Your task to perform on an android device: turn off location history Image 0: 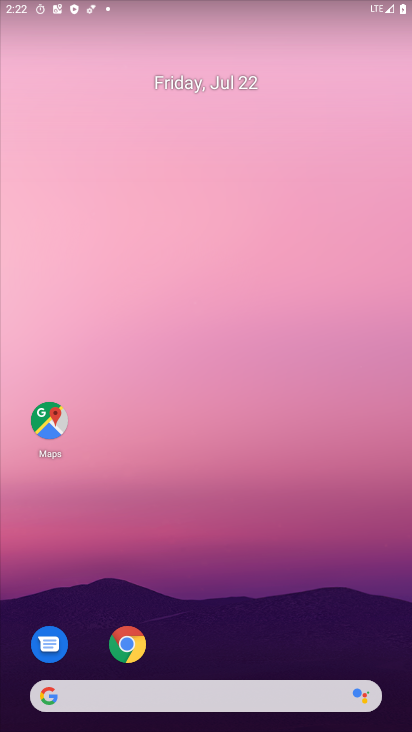
Step 0: drag from (257, 659) to (252, 6)
Your task to perform on an android device: turn off location history Image 1: 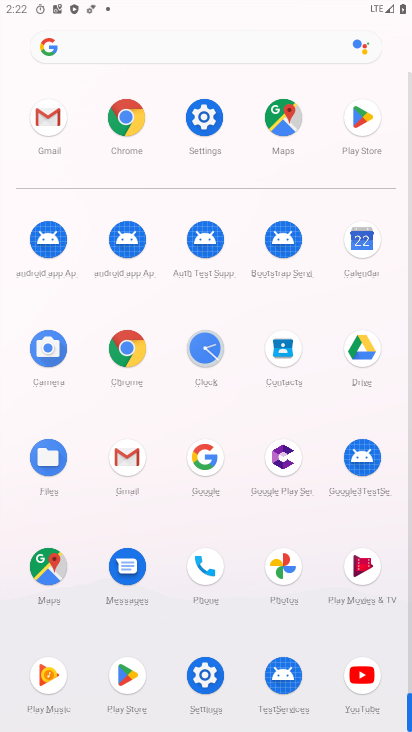
Step 1: click (209, 136)
Your task to perform on an android device: turn off location history Image 2: 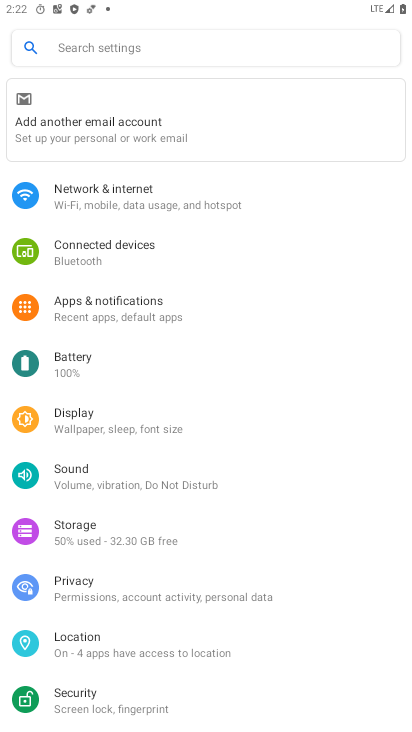
Step 2: click (126, 648)
Your task to perform on an android device: turn off location history Image 3: 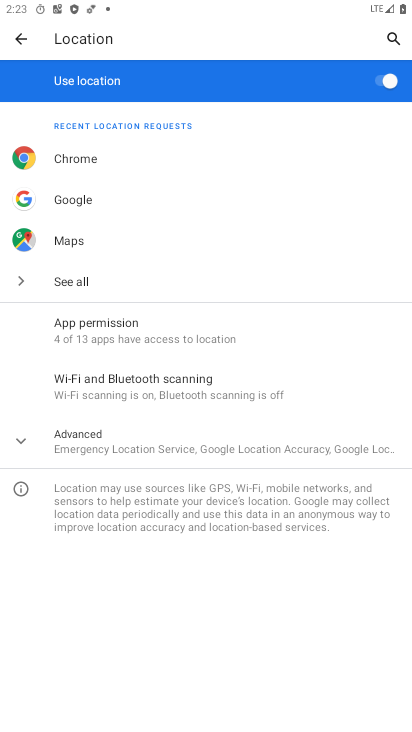
Step 3: click (217, 446)
Your task to perform on an android device: turn off location history Image 4: 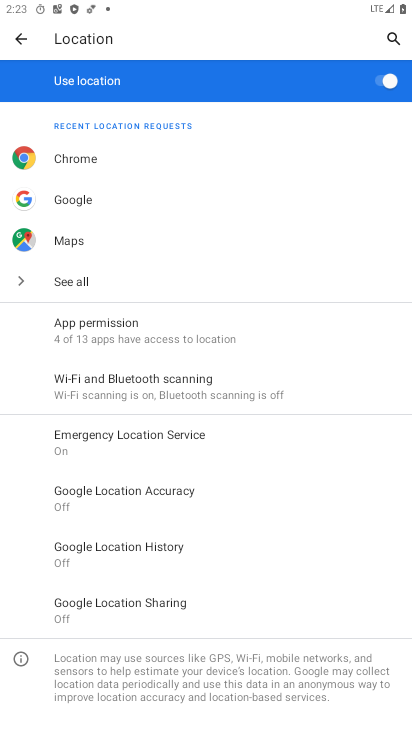
Step 4: click (159, 550)
Your task to perform on an android device: turn off location history Image 5: 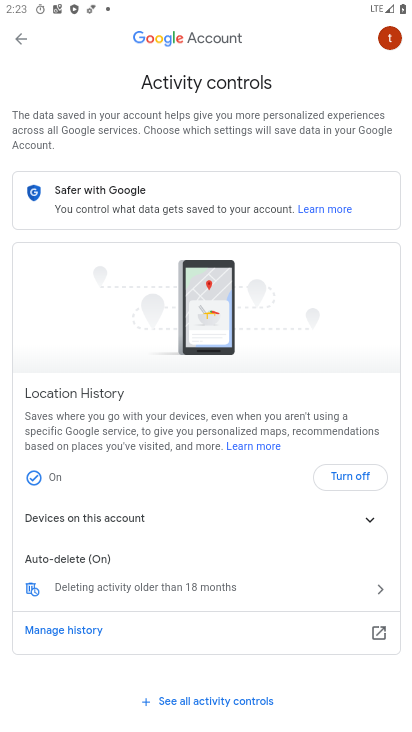
Step 5: click (343, 476)
Your task to perform on an android device: turn off location history Image 6: 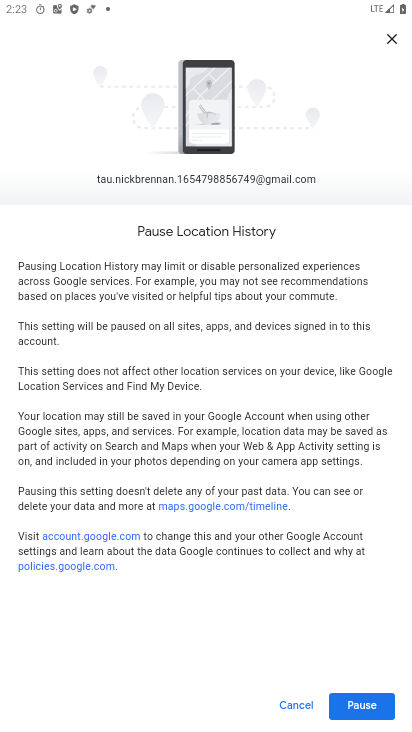
Step 6: click (383, 710)
Your task to perform on an android device: turn off location history Image 7: 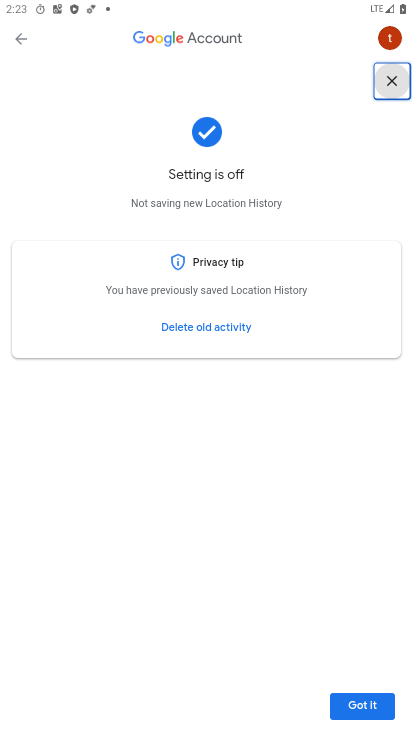
Step 7: click (381, 707)
Your task to perform on an android device: turn off location history Image 8: 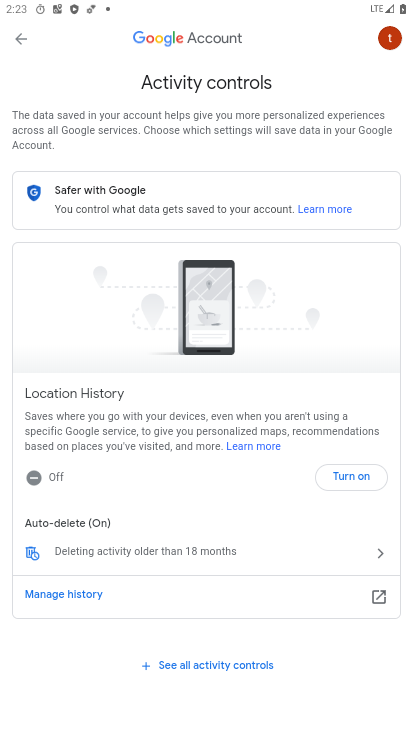
Step 8: task complete